Your task to perform on an android device: What's the weather going to be tomorrow? Image 0: 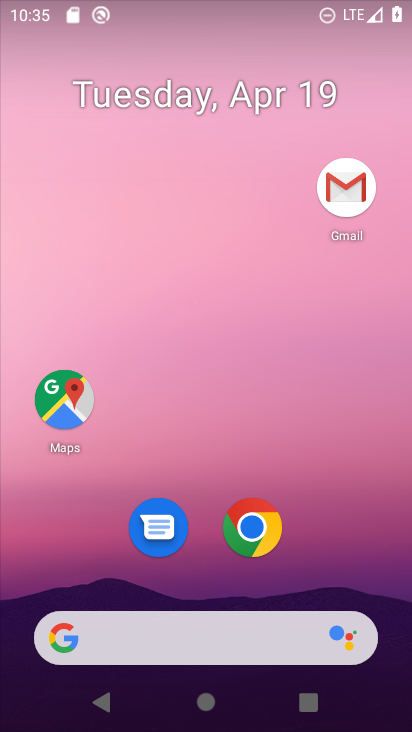
Step 0: drag from (361, 523) to (363, 137)
Your task to perform on an android device: What's the weather going to be tomorrow? Image 1: 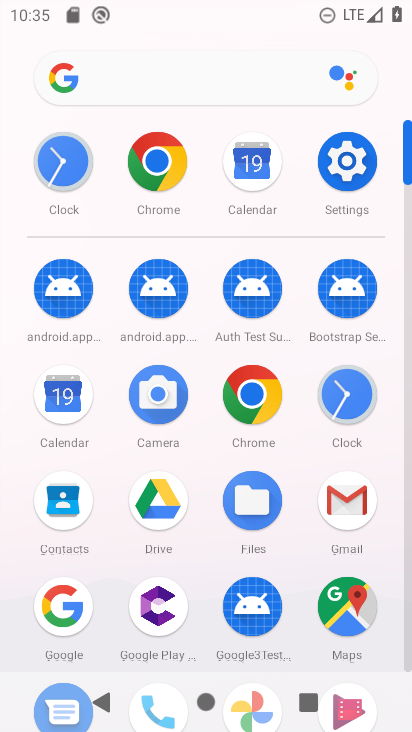
Step 1: click (251, 413)
Your task to perform on an android device: What's the weather going to be tomorrow? Image 2: 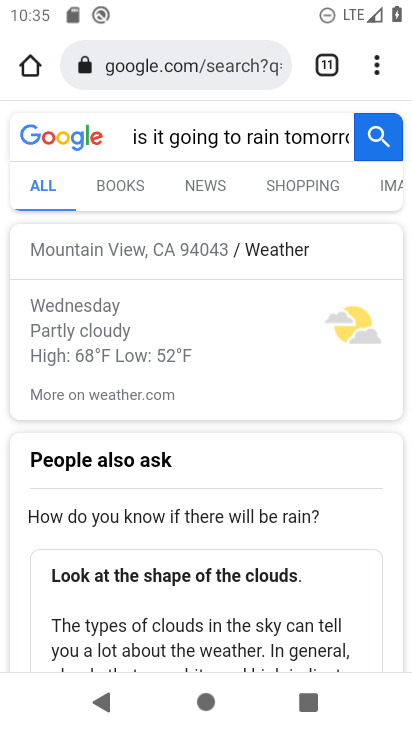
Step 2: click (171, 60)
Your task to perform on an android device: What's the weather going to be tomorrow? Image 3: 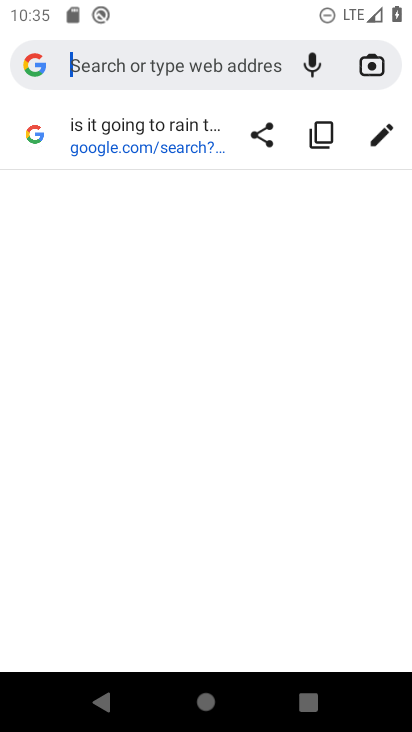
Step 3: type "what's the weather going to be tomorrow"
Your task to perform on an android device: What's the weather going to be tomorrow? Image 4: 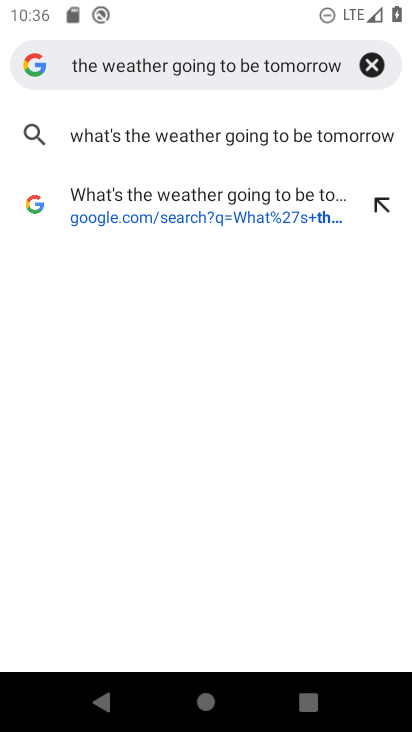
Step 4: click (206, 133)
Your task to perform on an android device: What's the weather going to be tomorrow? Image 5: 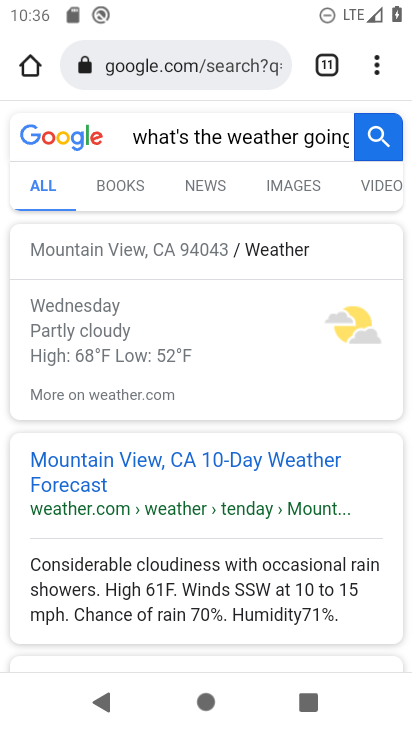
Step 5: task complete